Your task to perform on an android device: toggle notifications settings in the gmail app Image 0: 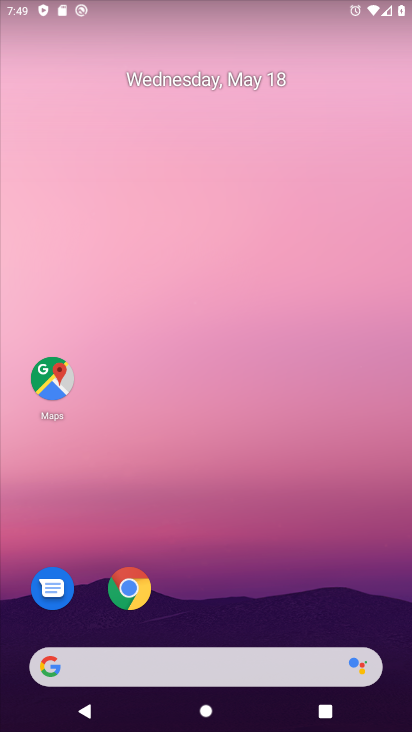
Step 0: drag from (227, 623) to (269, 360)
Your task to perform on an android device: toggle notifications settings in the gmail app Image 1: 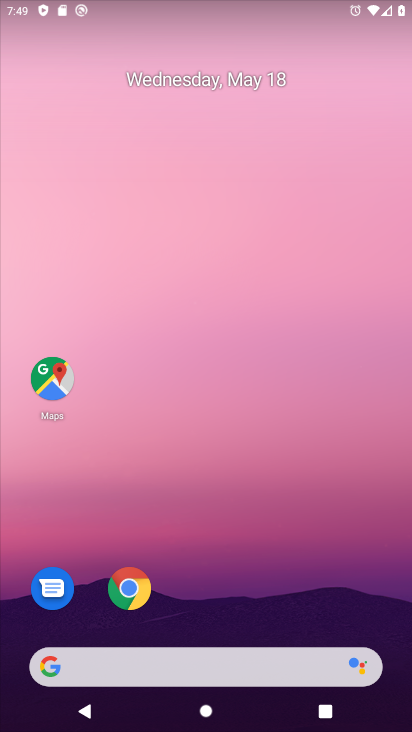
Step 1: drag from (218, 625) to (227, 104)
Your task to perform on an android device: toggle notifications settings in the gmail app Image 2: 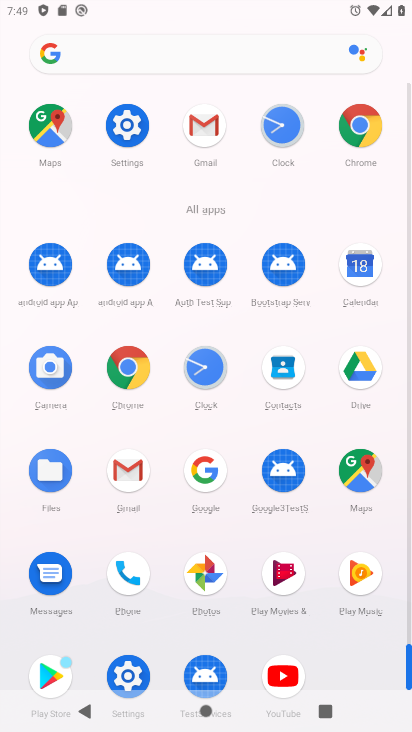
Step 2: click (124, 483)
Your task to perform on an android device: toggle notifications settings in the gmail app Image 3: 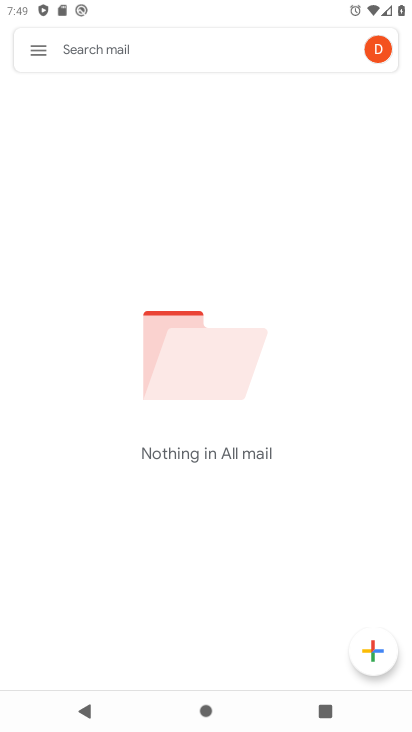
Step 3: click (41, 49)
Your task to perform on an android device: toggle notifications settings in the gmail app Image 4: 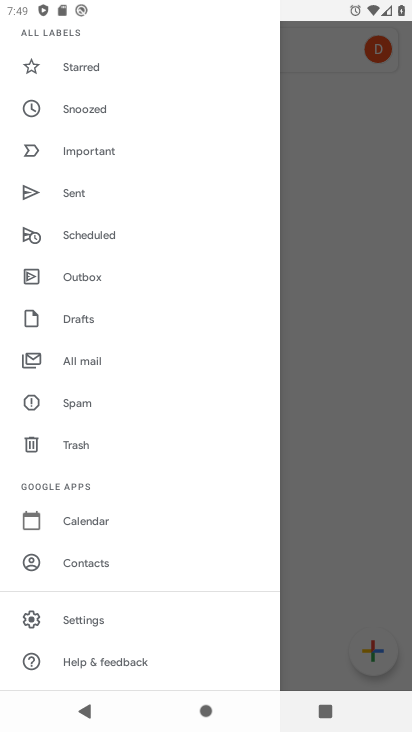
Step 4: click (95, 623)
Your task to perform on an android device: toggle notifications settings in the gmail app Image 5: 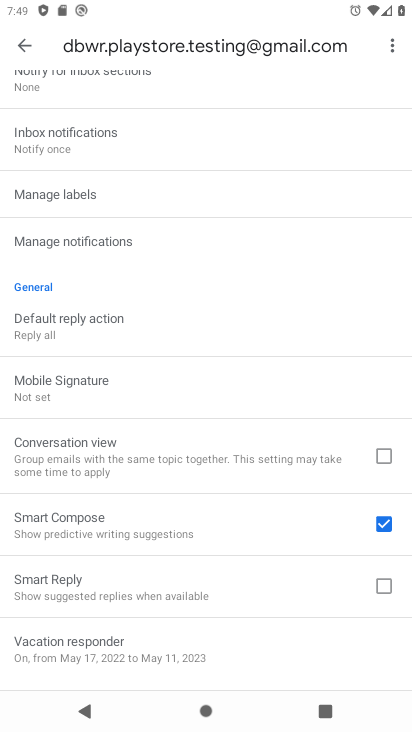
Step 5: click (18, 37)
Your task to perform on an android device: toggle notifications settings in the gmail app Image 6: 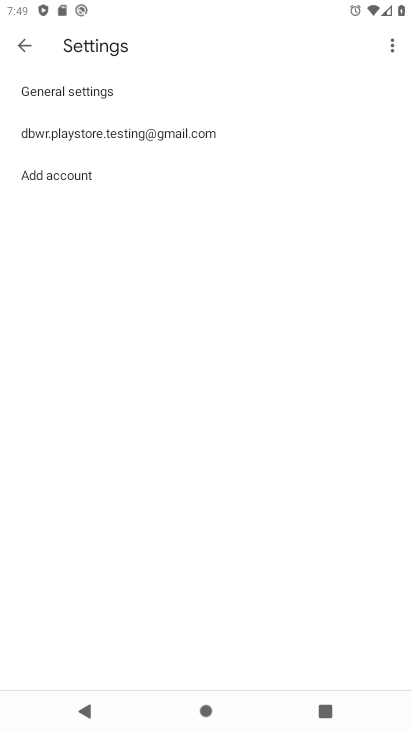
Step 6: click (116, 96)
Your task to perform on an android device: toggle notifications settings in the gmail app Image 7: 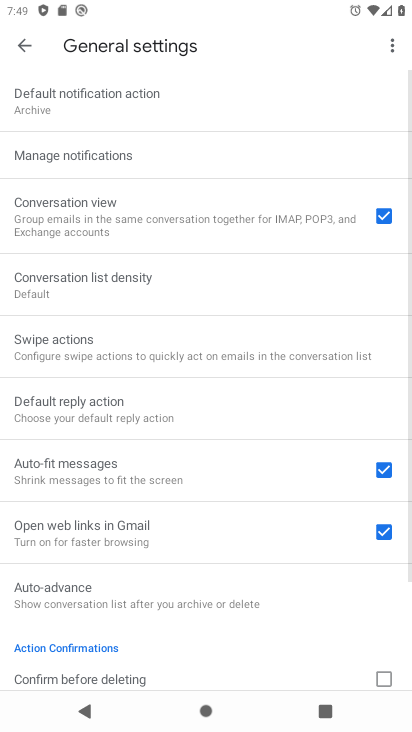
Step 7: click (107, 156)
Your task to perform on an android device: toggle notifications settings in the gmail app Image 8: 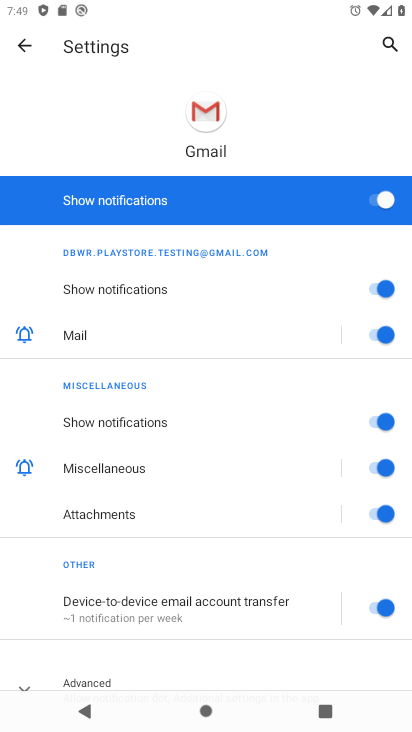
Step 8: click (345, 205)
Your task to perform on an android device: toggle notifications settings in the gmail app Image 9: 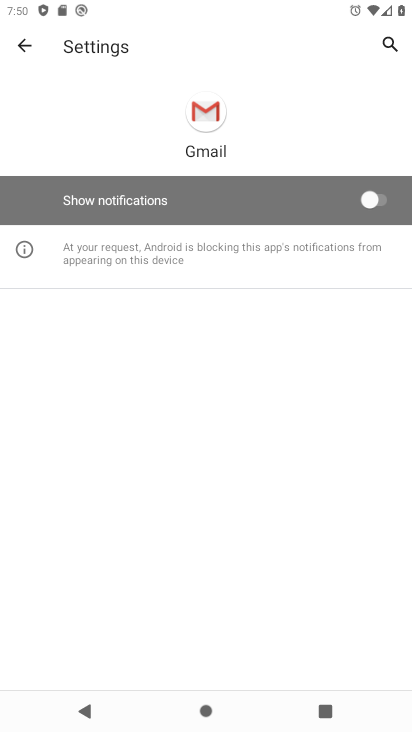
Step 9: task complete